Your task to perform on an android device: install app "Truecaller" Image 0: 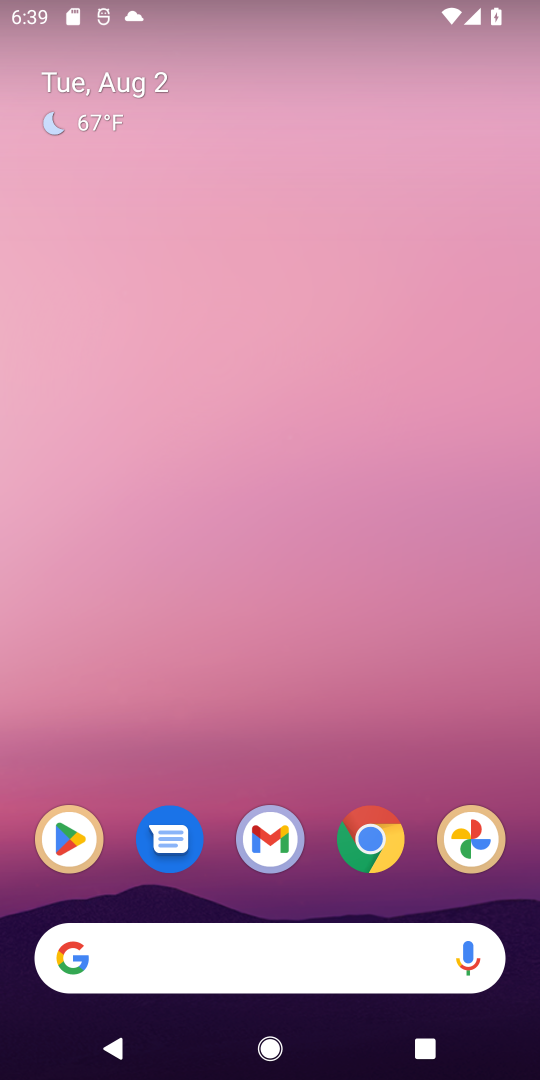
Step 0: click (61, 842)
Your task to perform on an android device: install app "Truecaller" Image 1: 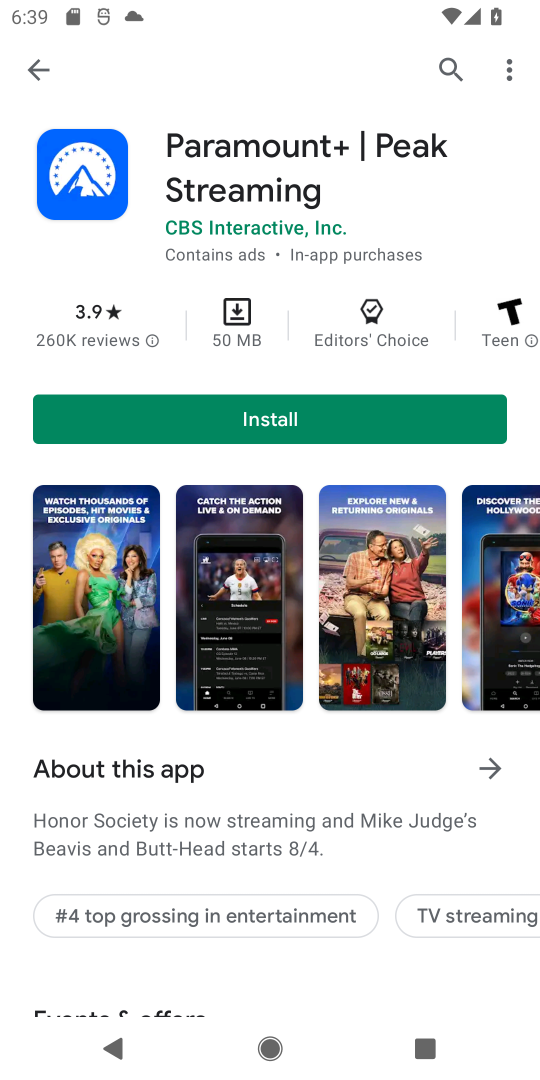
Step 1: click (32, 42)
Your task to perform on an android device: install app "Truecaller" Image 2: 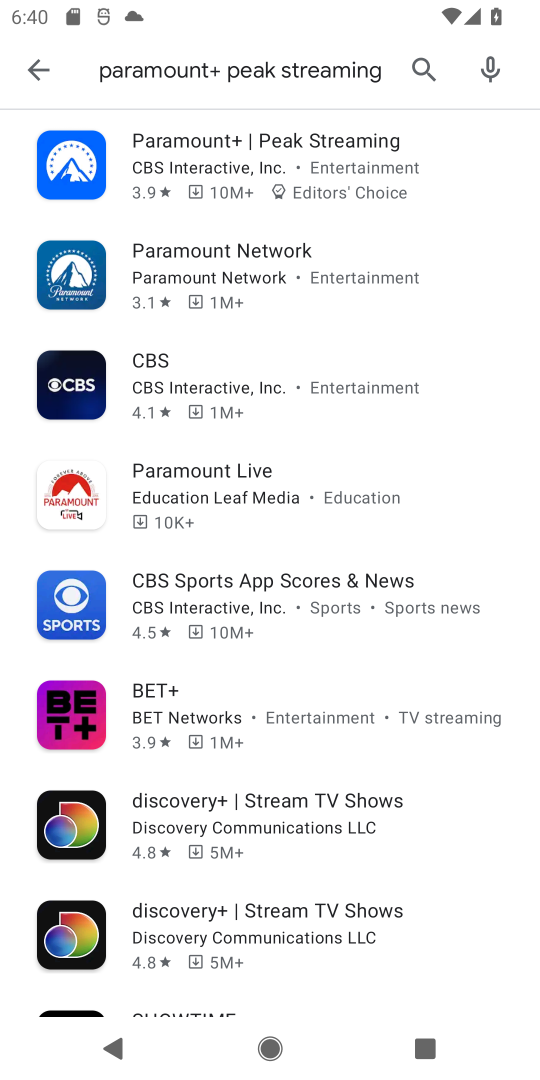
Step 2: click (273, 73)
Your task to perform on an android device: install app "Truecaller" Image 3: 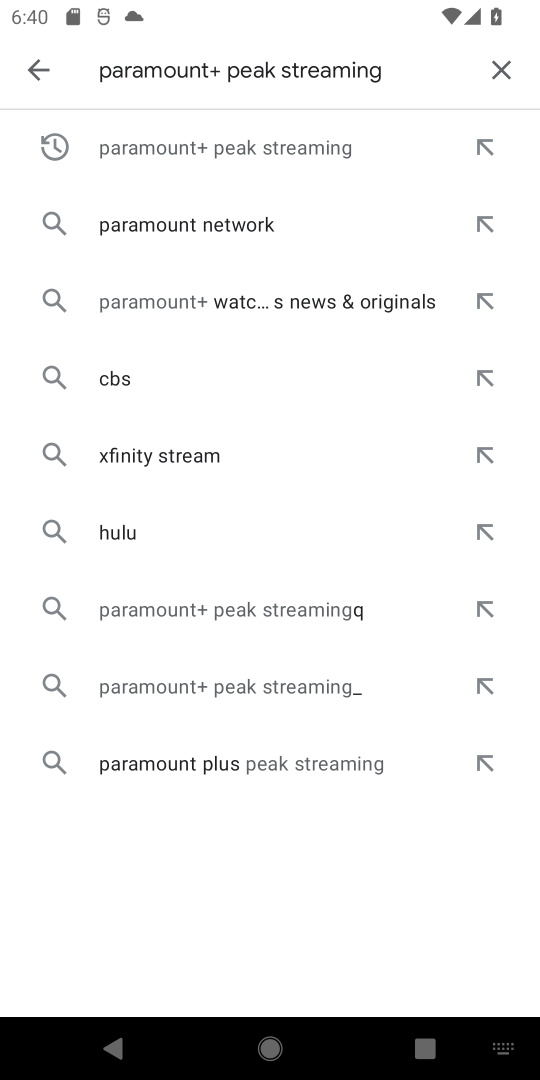
Step 3: click (493, 55)
Your task to perform on an android device: install app "Truecaller" Image 4: 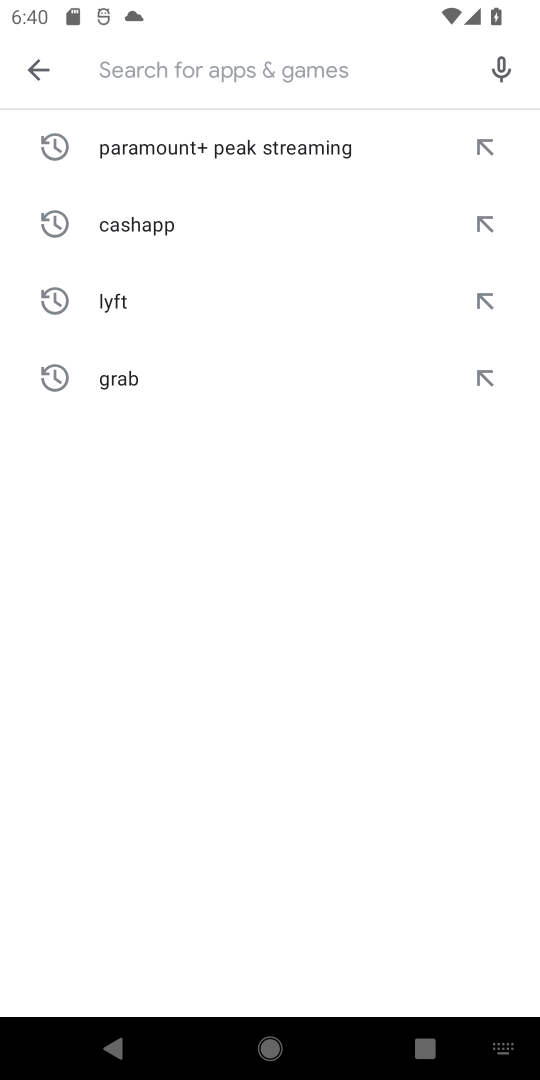
Step 4: type "truecaller"
Your task to perform on an android device: install app "Truecaller" Image 5: 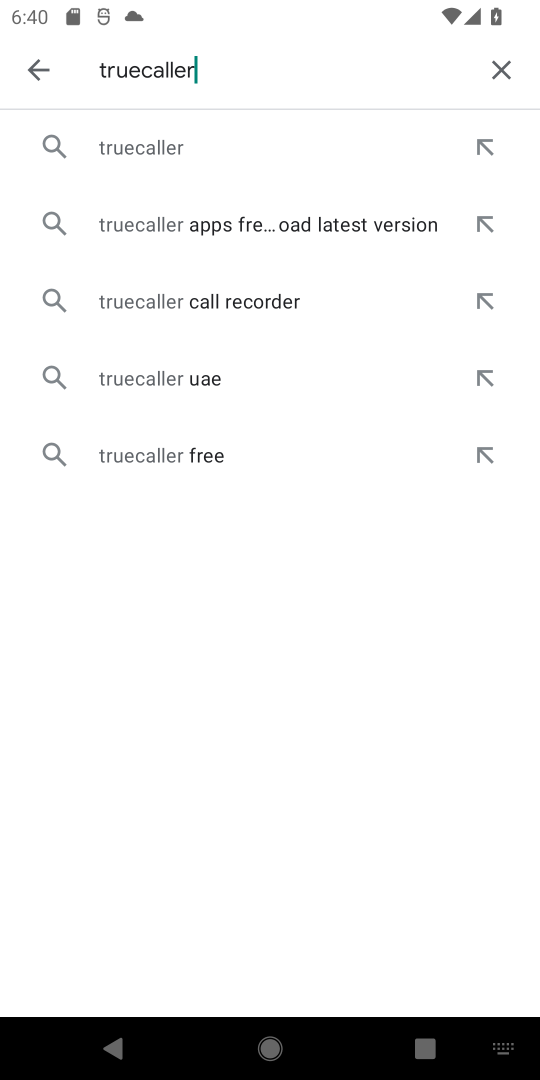
Step 5: click (193, 142)
Your task to perform on an android device: install app "Truecaller" Image 6: 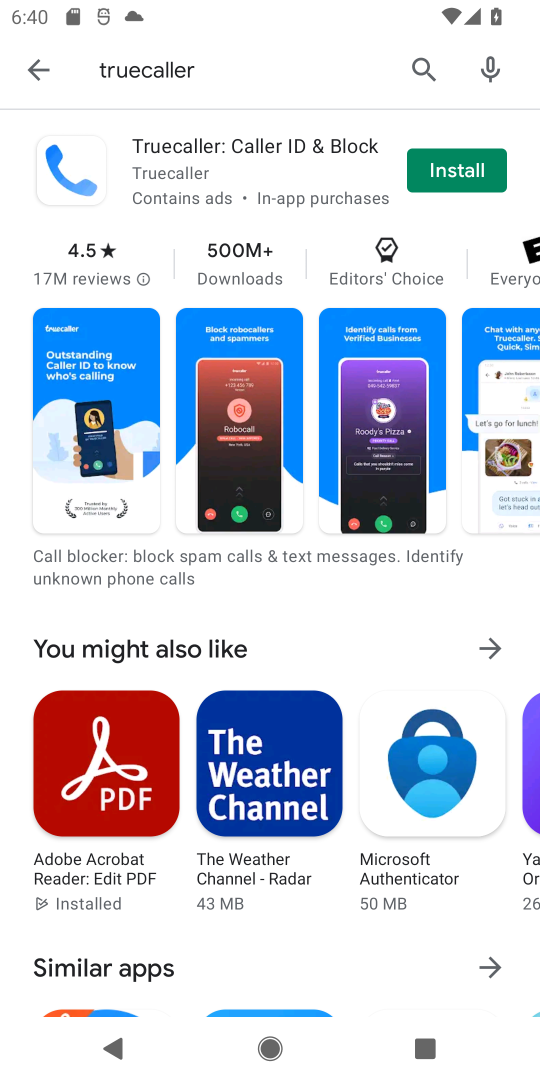
Step 6: click (478, 168)
Your task to perform on an android device: install app "Truecaller" Image 7: 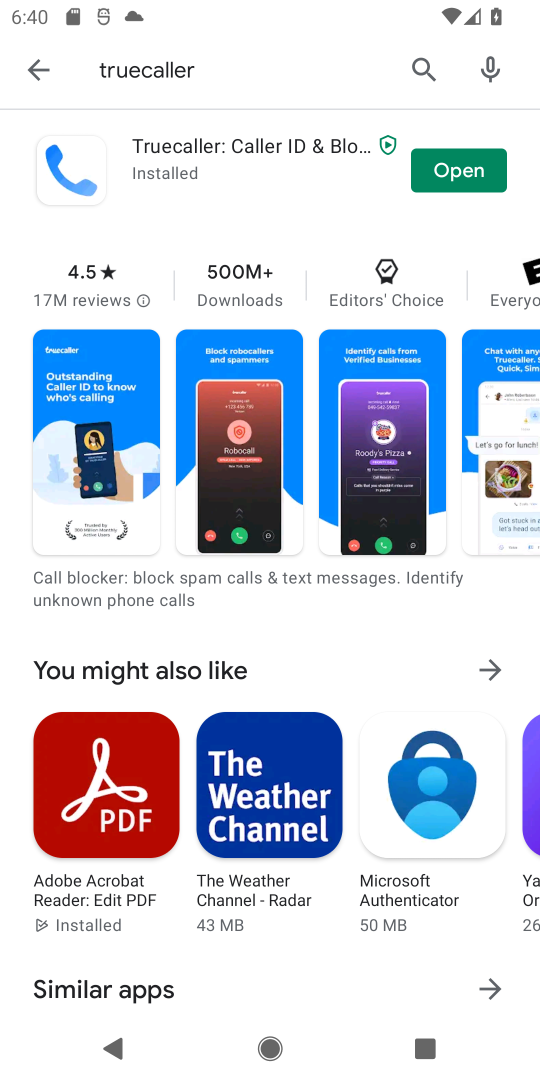
Step 7: task complete